Your task to perform on an android device: see tabs open on other devices in the chrome app Image 0: 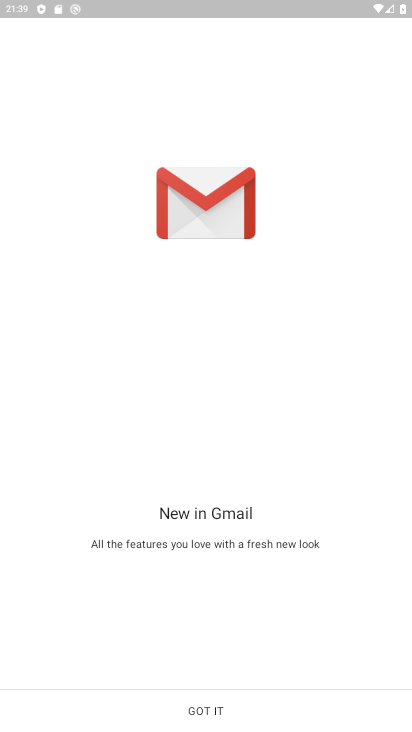
Step 0: press home button
Your task to perform on an android device: see tabs open on other devices in the chrome app Image 1: 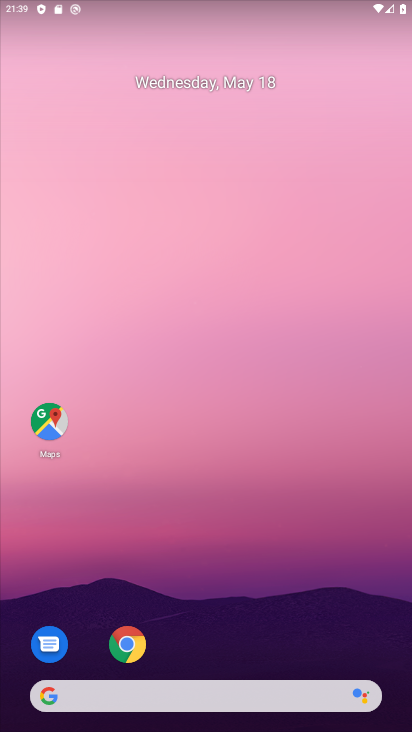
Step 1: click (120, 647)
Your task to perform on an android device: see tabs open on other devices in the chrome app Image 2: 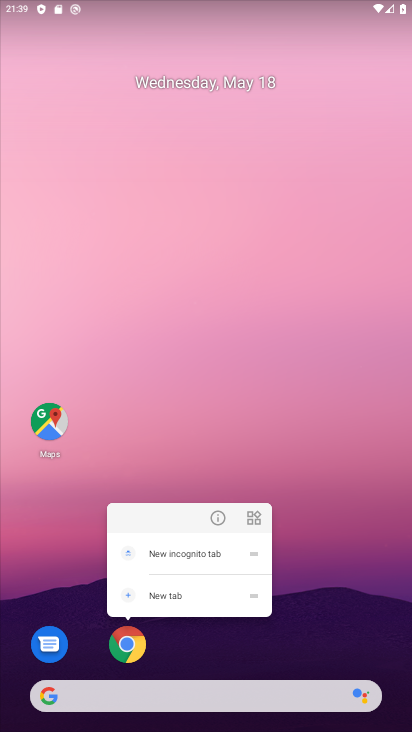
Step 2: click (120, 647)
Your task to perform on an android device: see tabs open on other devices in the chrome app Image 3: 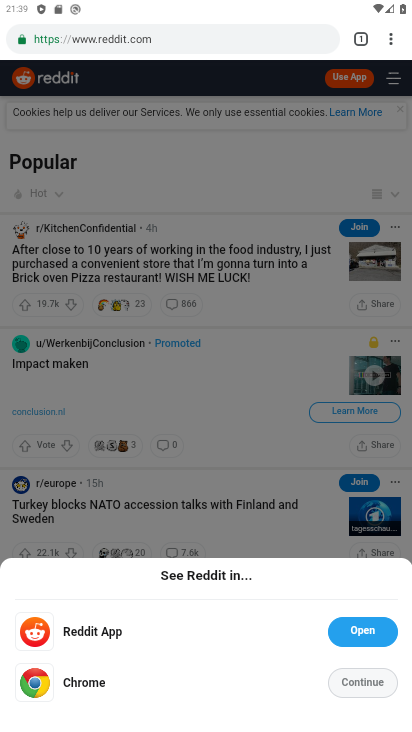
Step 3: task complete